Your task to perform on an android device: Open sound settings Image 0: 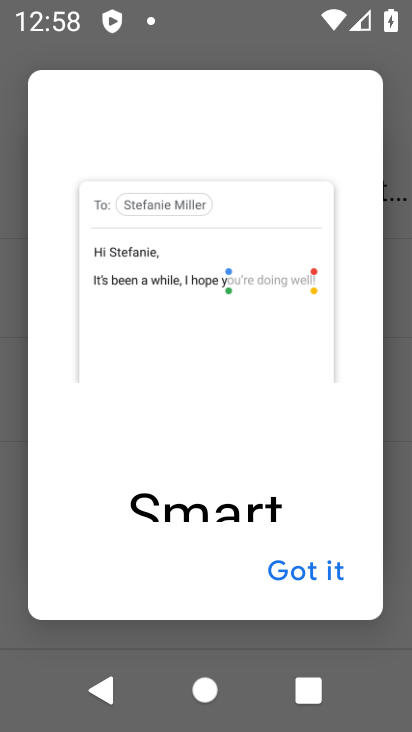
Step 0: press home button
Your task to perform on an android device: Open sound settings Image 1: 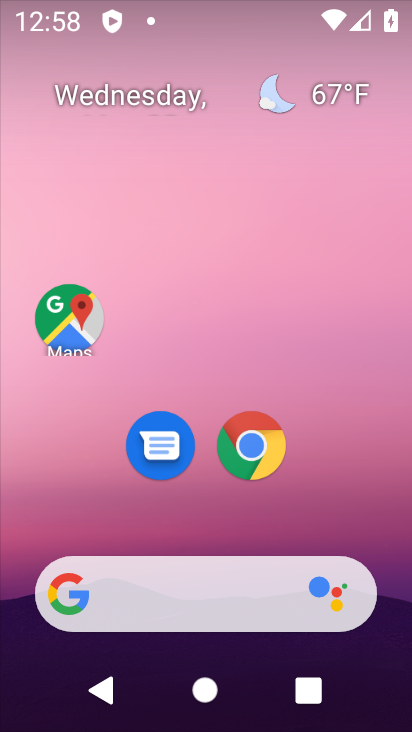
Step 1: drag from (399, 589) to (277, 138)
Your task to perform on an android device: Open sound settings Image 2: 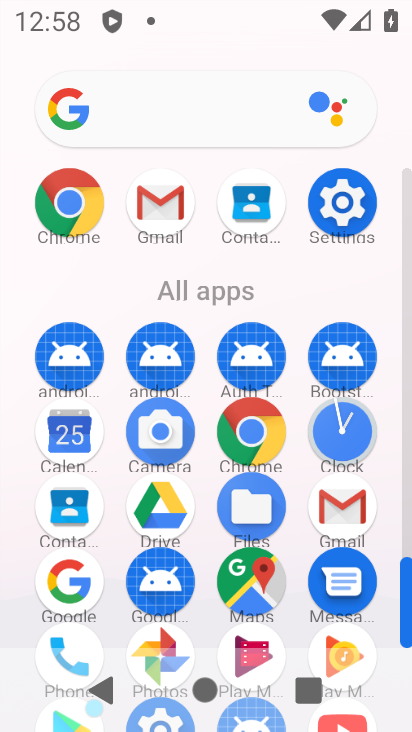
Step 2: click (324, 212)
Your task to perform on an android device: Open sound settings Image 3: 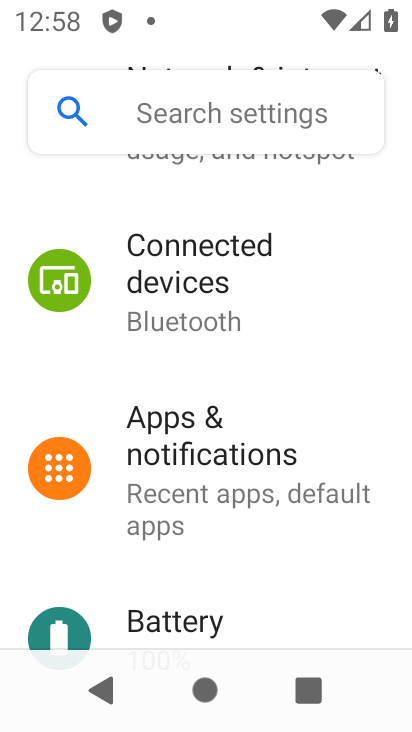
Step 3: drag from (272, 593) to (262, 267)
Your task to perform on an android device: Open sound settings Image 4: 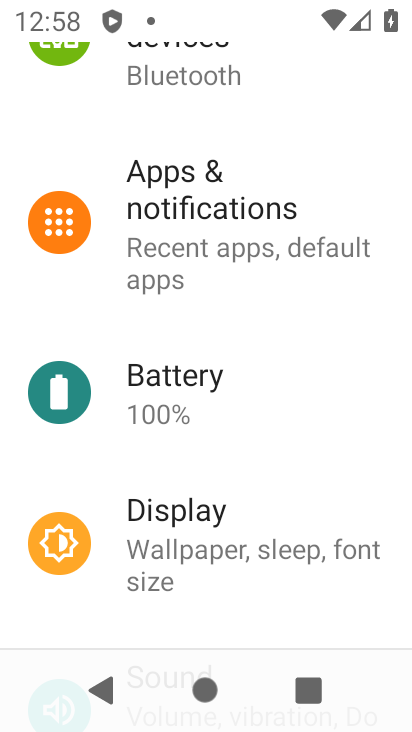
Step 4: drag from (241, 587) to (211, 244)
Your task to perform on an android device: Open sound settings Image 5: 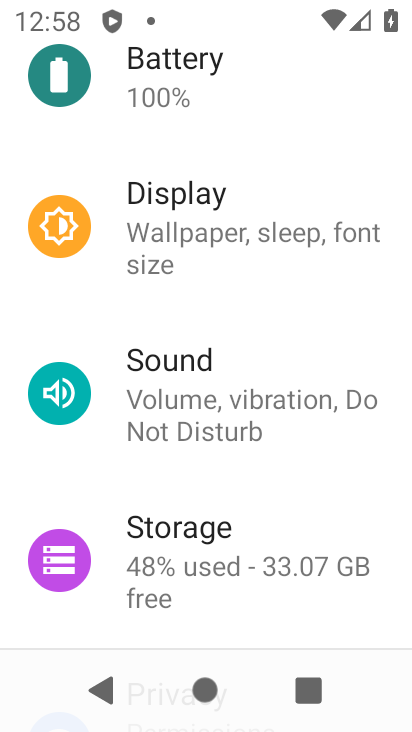
Step 5: click (215, 422)
Your task to perform on an android device: Open sound settings Image 6: 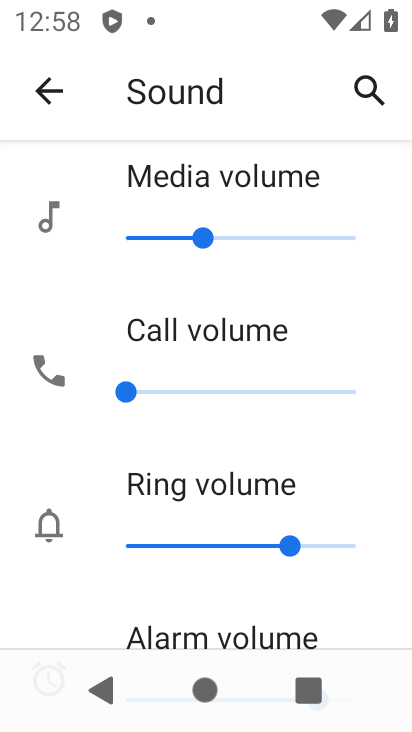
Step 6: task complete